Your task to perform on an android device: move an email to a new category in the gmail app Image 0: 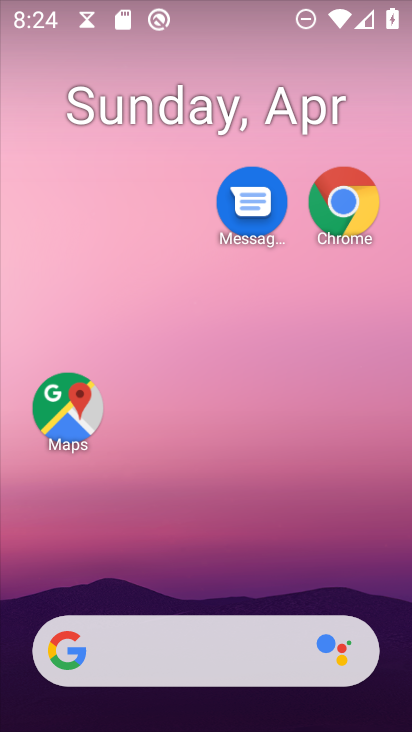
Step 0: drag from (171, 663) to (338, 64)
Your task to perform on an android device: move an email to a new category in the gmail app Image 1: 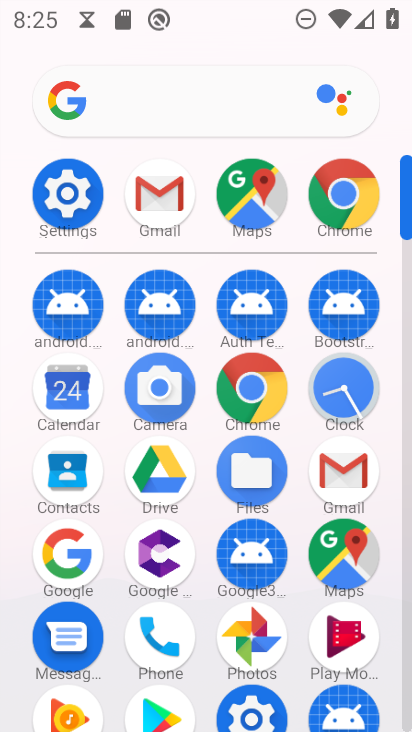
Step 1: click (164, 211)
Your task to perform on an android device: move an email to a new category in the gmail app Image 2: 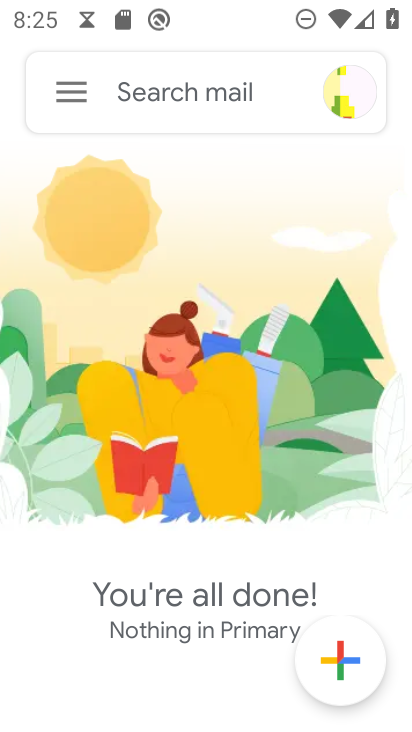
Step 2: click (67, 88)
Your task to perform on an android device: move an email to a new category in the gmail app Image 3: 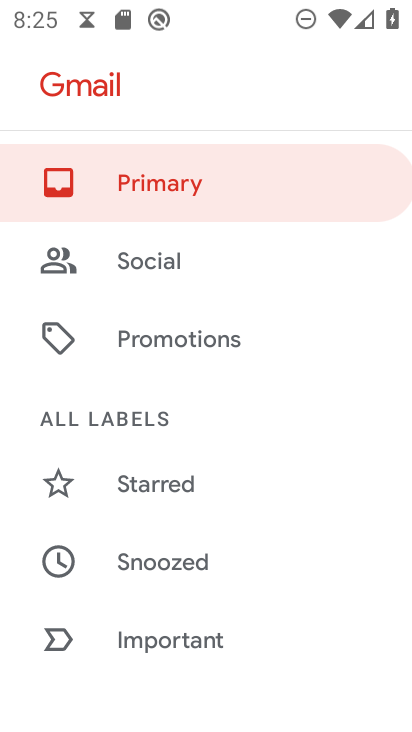
Step 3: drag from (240, 589) to (317, 229)
Your task to perform on an android device: move an email to a new category in the gmail app Image 4: 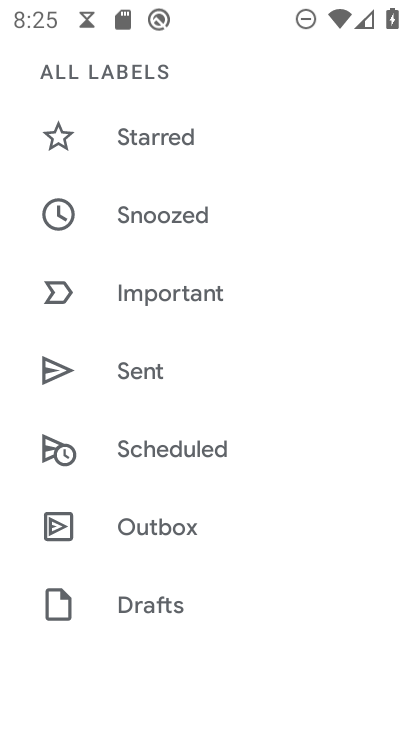
Step 4: click (185, 301)
Your task to perform on an android device: move an email to a new category in the gmail app Image 5: 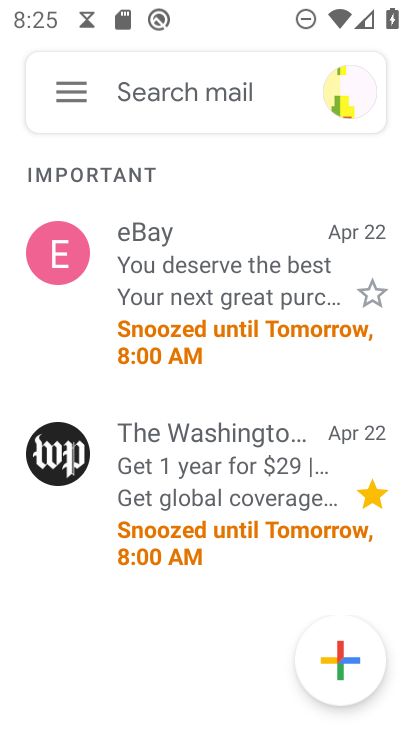
Step 5: click (72, 258)
Your task to perform on an android device: move an email to a new category in the gmail app Image 6: 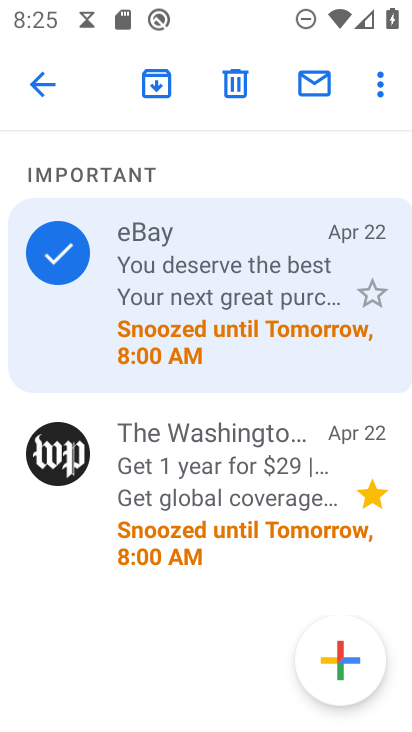
Step 6: click (378, 88)
Your task to perform on an android device: move an email to a new category in the gmail app Image 7: 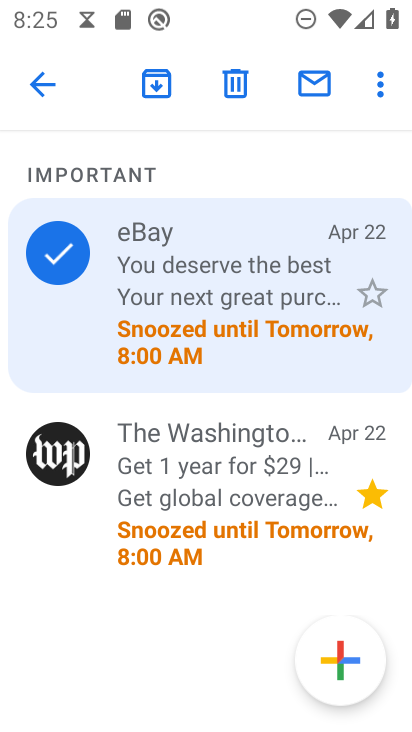
Step 7: click (379, 84)
Your task to perform on an android device: move an email to a new category in the gmail app Image 8: 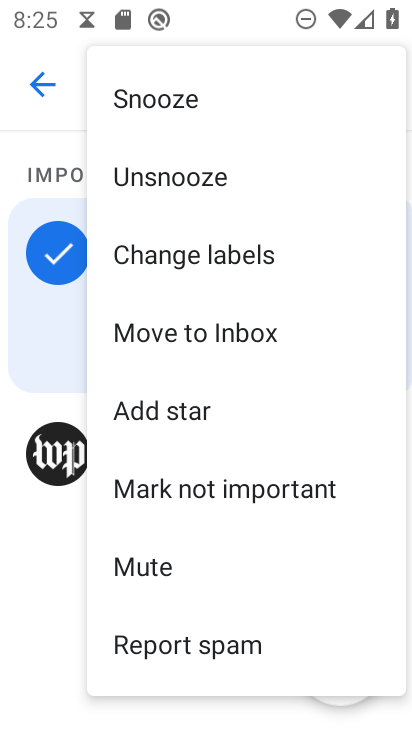
Step 8: click (226, 491)
Your task to perform on an android device: move an email to a new category in the gmail app Image 9: 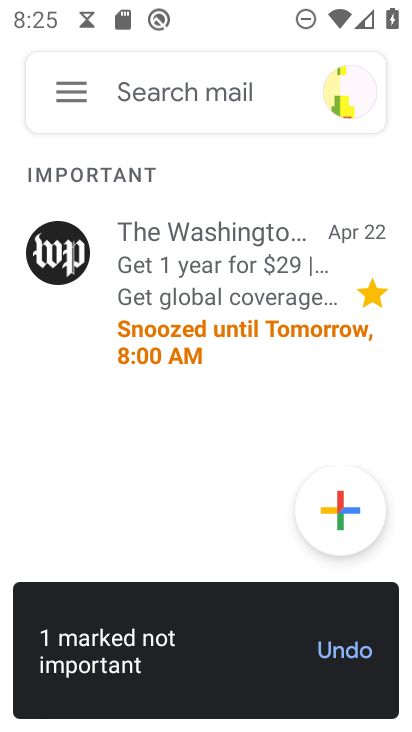
Step 9: task complete